Your task to perform on an android device: Open sound settings Image 0: 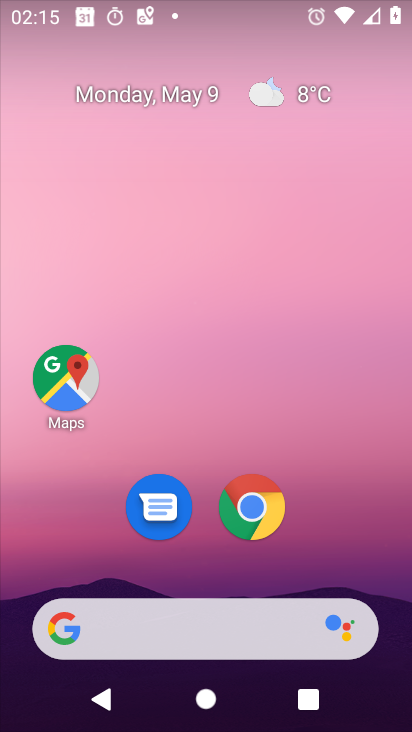
Step 0: drag from (239, 722) to (234, 83)
Your task to perform on an android device: Open sound settings Image 1: 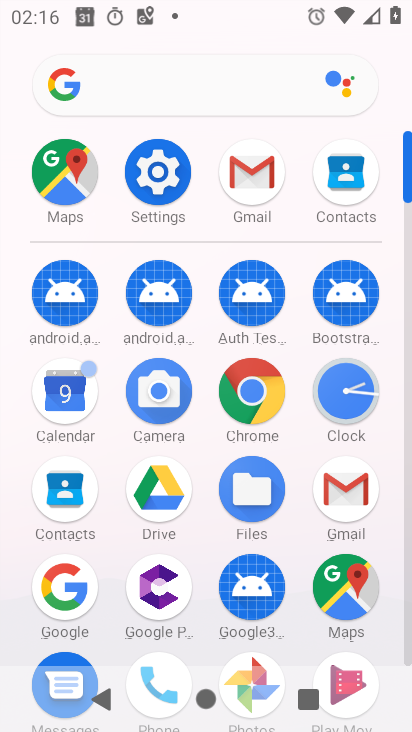
Step 1: click (151, 161)
Your task to perform on an android device: Open sound settings Image 2: 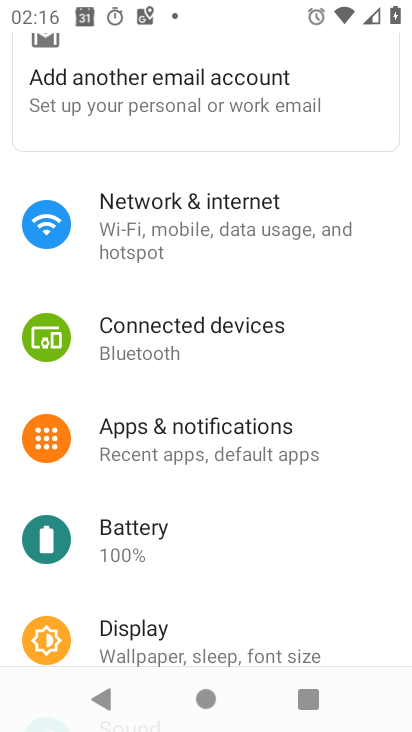
Step 2: drag from (216, 614) to (218, 271)
Your task to perform on an android device: Open sound settings Image 3: 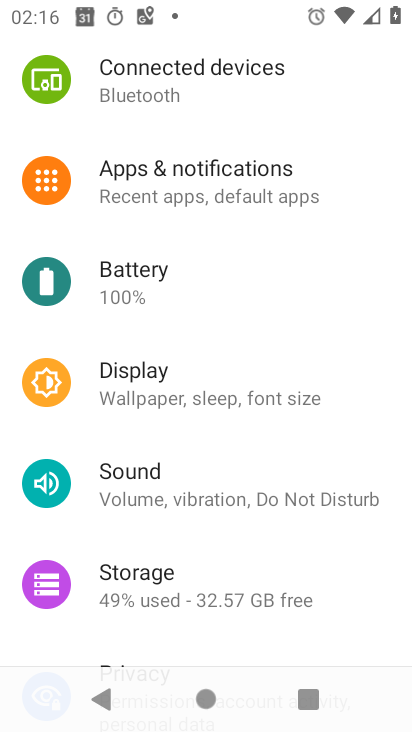
Step 3: click (140, 487)
Your task to perform on an android device: Open sound settings Image 4: 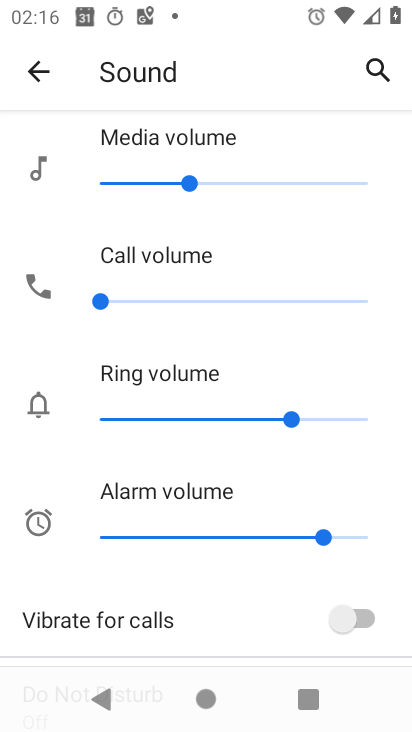
Step 4: task complete